Your task to perform on an android device: Go to calendar. Show me events next week Image 0: 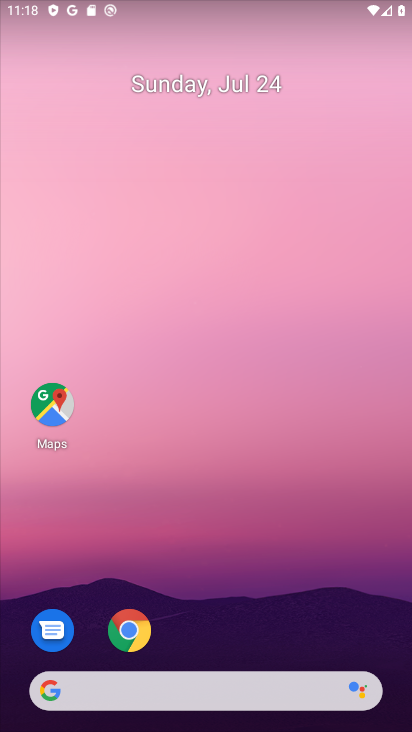
Step 0: press home button
Your task to perform on an android device: Go to calendar. Show me events next week Image 1: 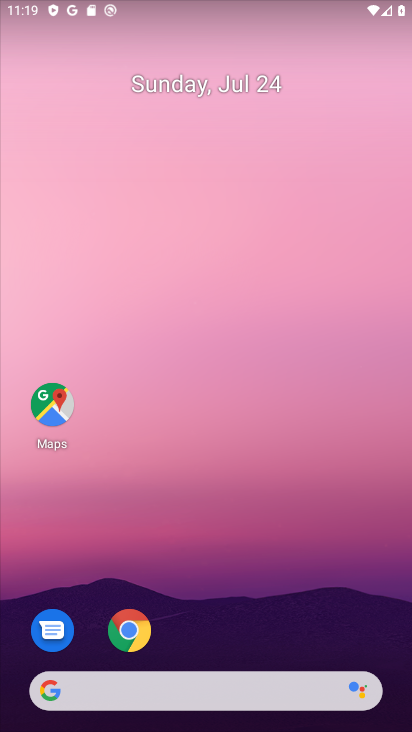
Step 1: drag from (336, 658) to (330, 17)
Your task to perform on an android device: Go to calendar. Show me events next week Image 2: 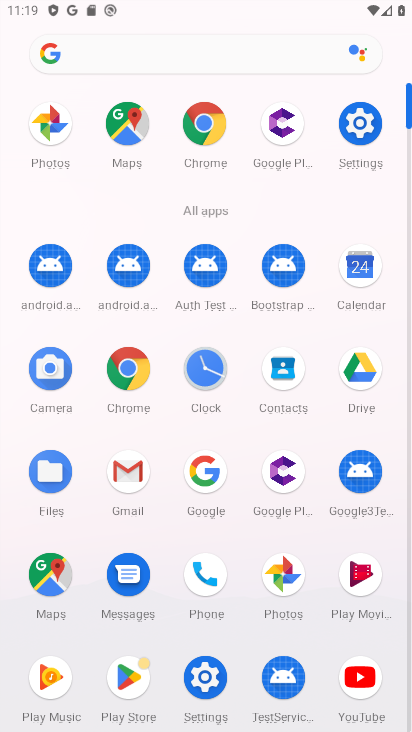
Step 2: click (357, 265)
Your task to perform on an android device: Go to calendar. Show me events next week Image 3: 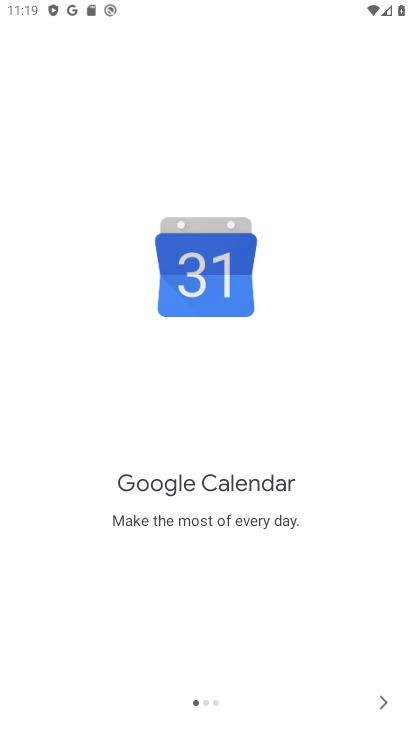
Step 3: click (380, 691)
Your task to perform on an android device: Go to calendar. Show me events next week Image 4: 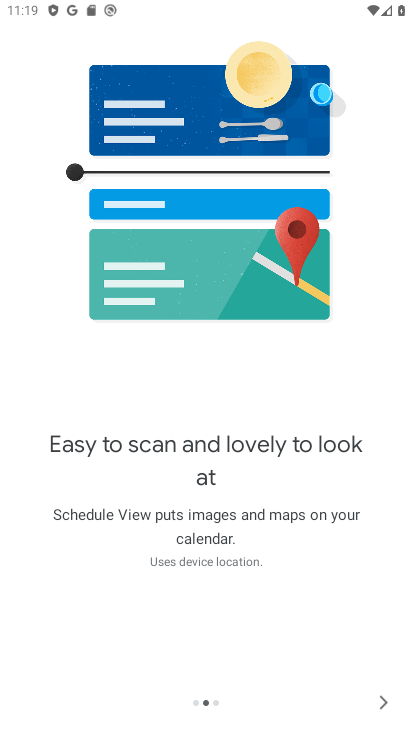
Step 4: click (383, 700)
Your task to perform on an android device: Go to calendar. Show me events next week Image 5: 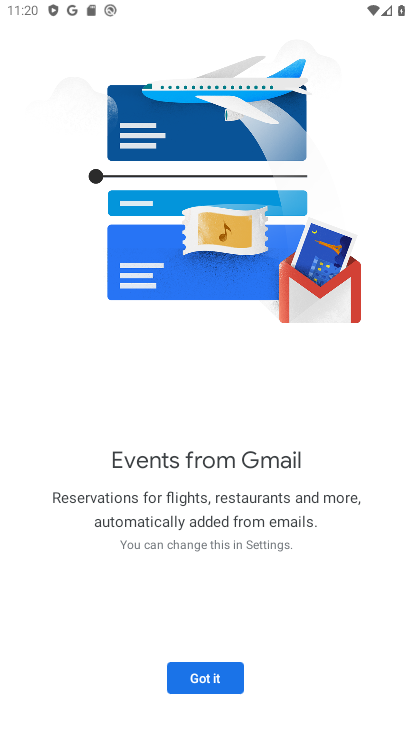
Step 5: click (199, 679)
Your task to perform on an android device: Go to calendar. Show me events next week Image 6: 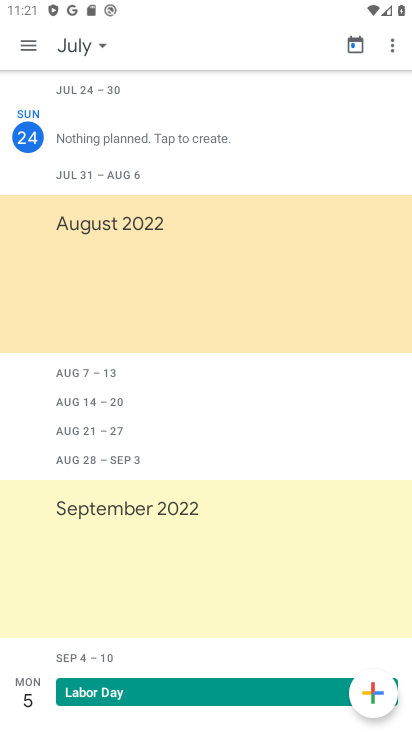
Step 6: click (78, 37)
Your task to perform on an android device: Go to calendar. Show me events next week Image 7: 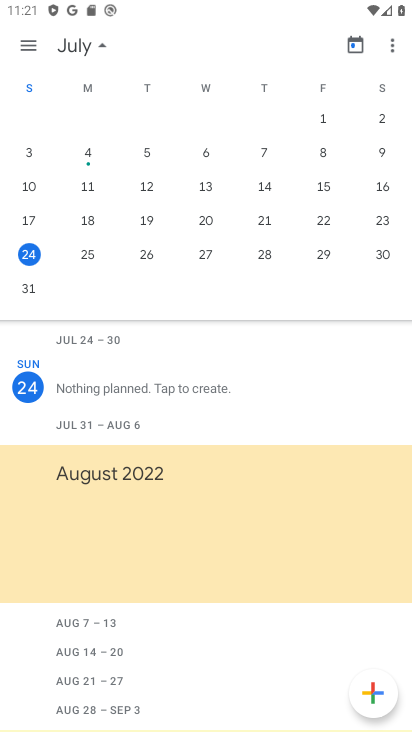
Step 7: click (81, 268)
Your task to perform on an android device: Go to calendar. Show me events next week Image 8: 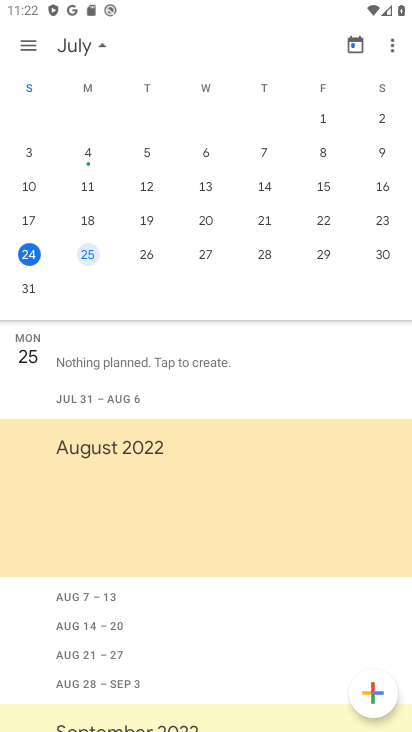
Step 8: click (17, 294)
Your task to perform on an android device: Go to calendar. Show me events next week Image 9: 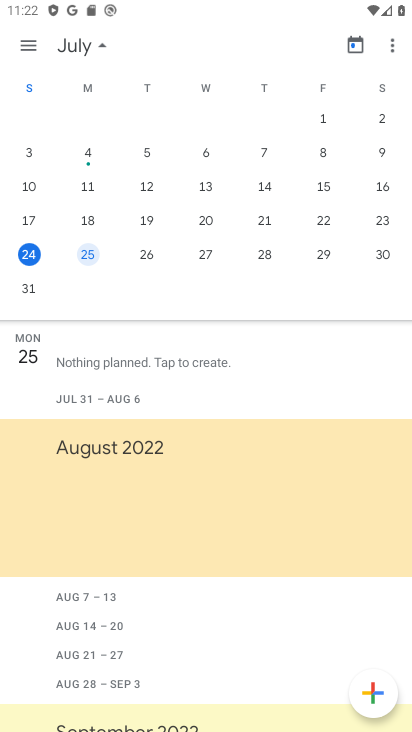
Step 9: task complete